Your task to perform on an android device: check out phone information Image 0: 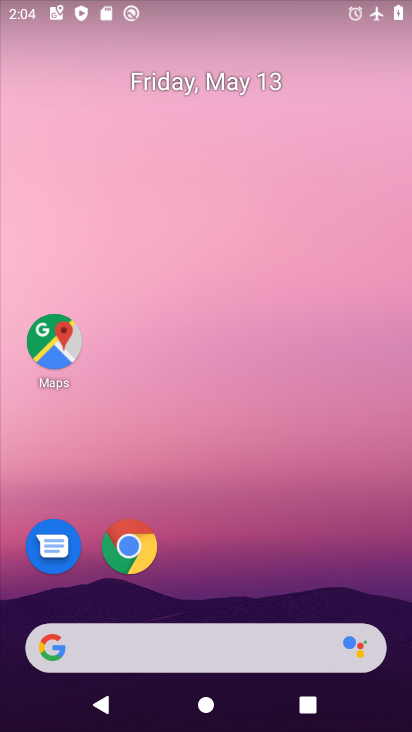
Step 0: drag from (271, 601) to (233, 121)
Your task to perform on an android device: check out phone information Image 1: 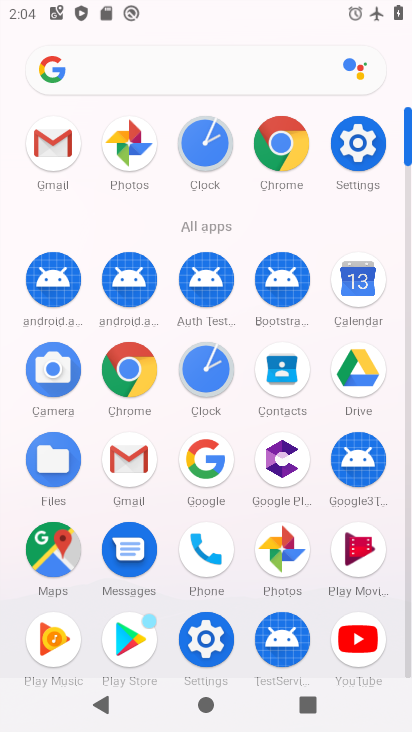
Step 1: click (199, 549)
Your task to perform on an android device: check out phone information Image 2: 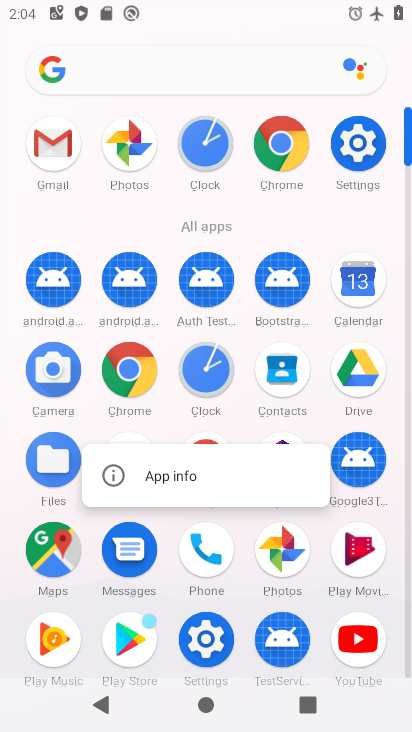
Step 2: click (220, 479)
Your task to perform on an android device: check out phone information Image 3: 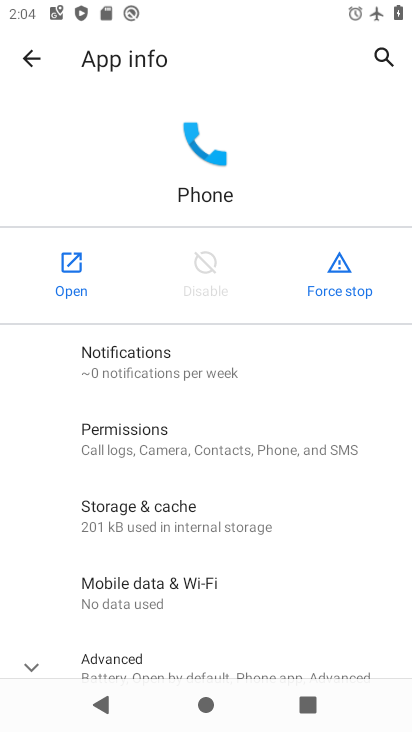
Step 3: task complete